Your task to perform on an android device: turn on location history Image 0: 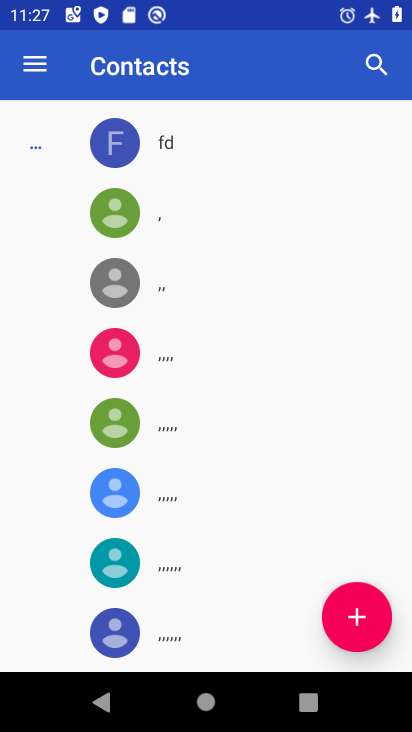
Step 0: press home button
Your task to perform on an android device: turn on location history Image 1: 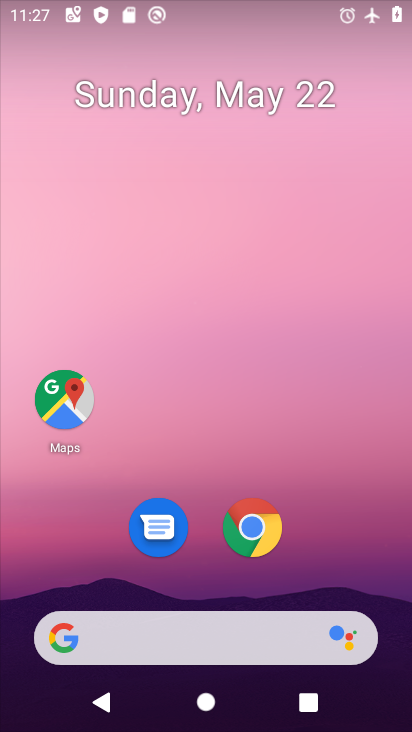
Step 1: drag from (342, 566) to (333, 153)
Your task to perform on an android device: turn on location history Image 2: 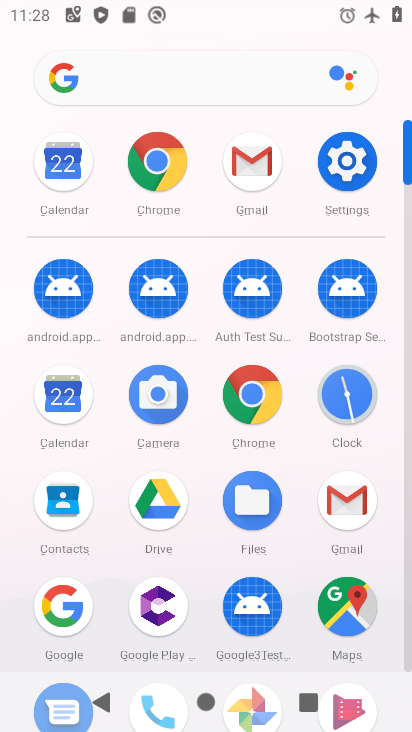
Step 2: click (323, 191)
Your task to perform on an android device: turn on location history Image 3: 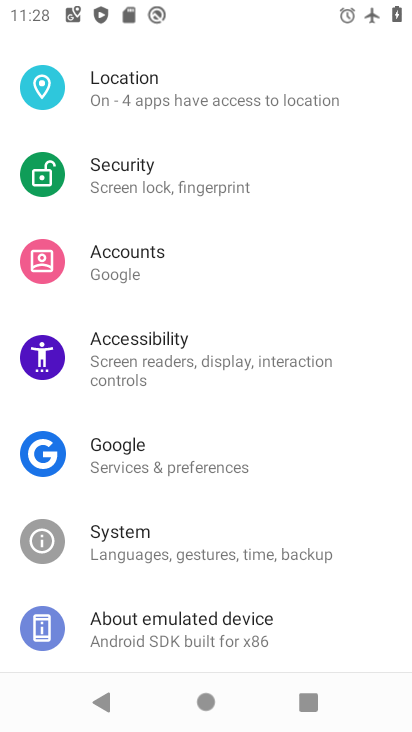
Step 3: drag from (247, 127) to (139, 669)
Your task to perform on an android device: turn on location history Image 4: 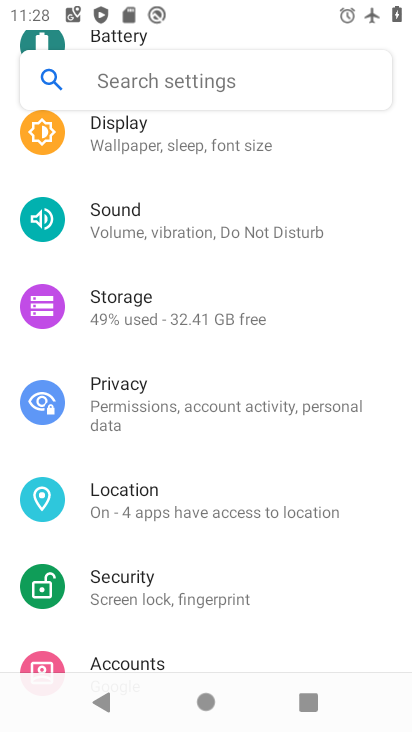
Step 4: drag from (148, 313) to (147, 690)
Your task to perform on an android device: turn on location history Image 5: 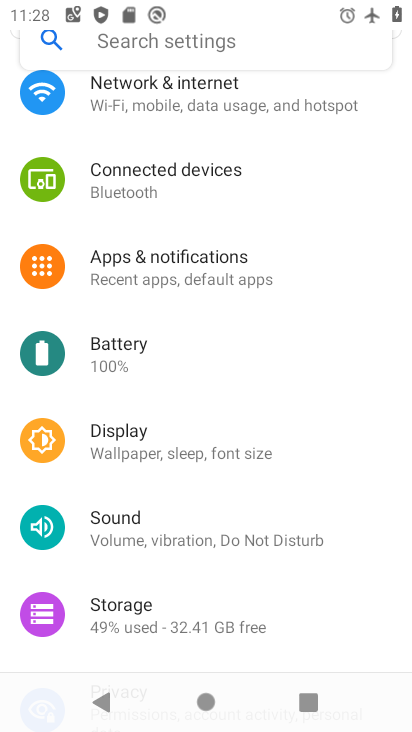
Step 5: drag from (147, 604) to (224, 232)
Your task to perform on an android device: turn on location history Image 6: 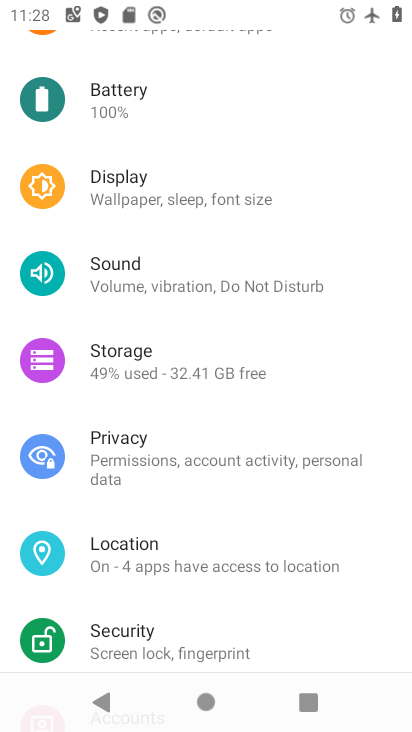
Step 6: click (154, 527)
Your task to perform on an android device: turn on location history Image 7: 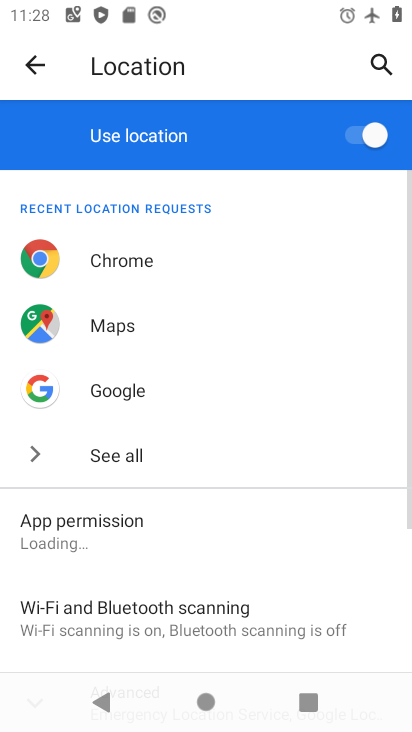
Step 7: drag from (157, 632) to (235, 237)
Your task to perform on an android device: turn on location history Image 8: 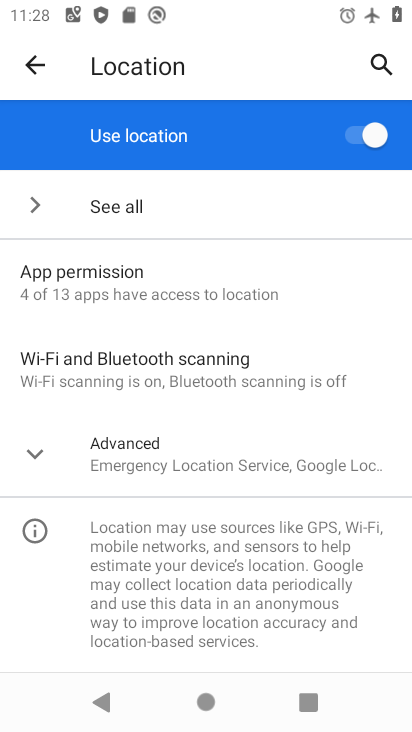
Step 8: click (167, 466)
Your task to perform on an android device: turn on location history Image 9: 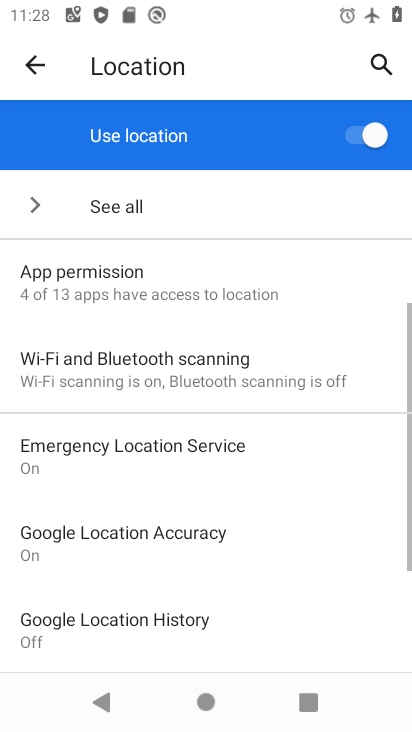
Step 9: drag from (214, 510) to (237, 294)
Your task to perform on an android device: turn on location history Image 10: 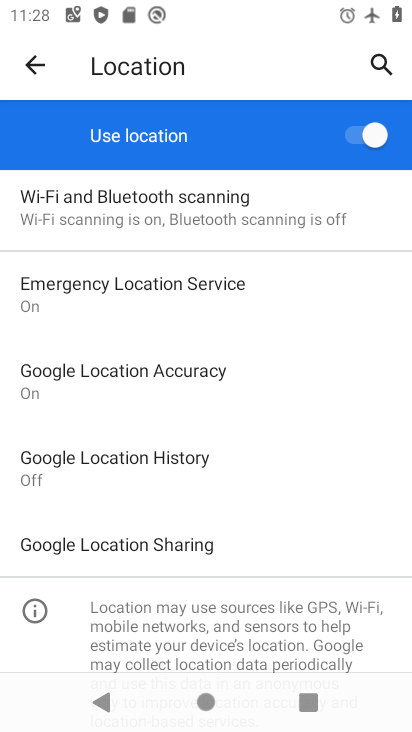
Step 10: click (144, 462)
Your task to perform on an android device: turn on location history Image 11: 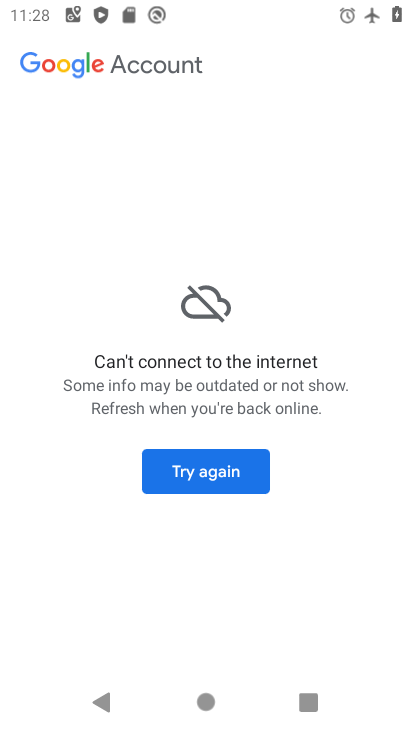
Step 11: task complete